Your task to perform on an android device: toggle priority inbox in the gmail app Image 0: 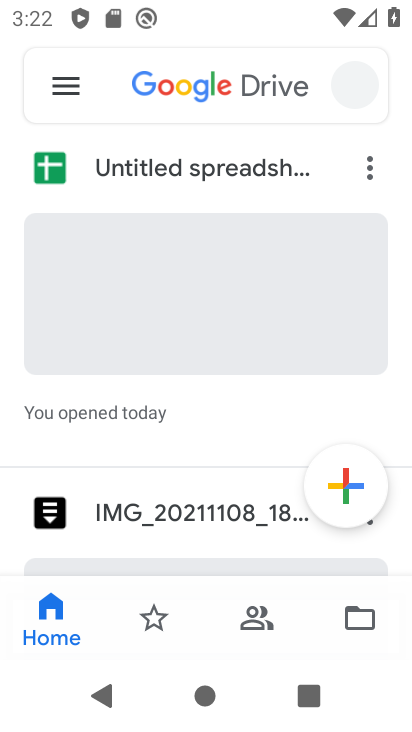
Step 0: press home button
Your task to perform on an android device: toggle priority inbox in the gmail app Image 1: 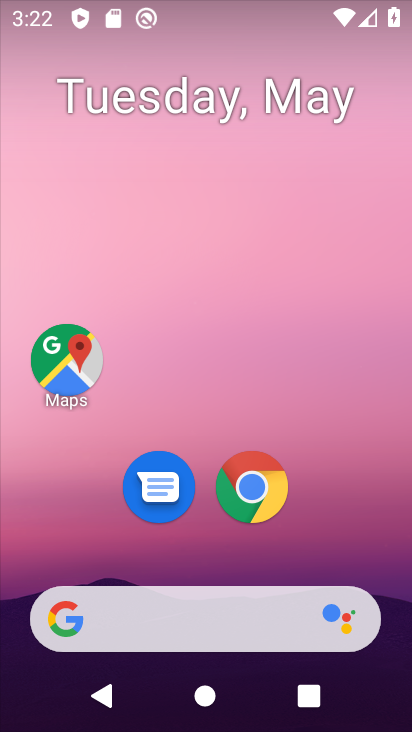
Step 1: drag from (205, 553) to (233, 0)
Your task to perform on an android device: toggle priority inbox in the gmail app Image 2: 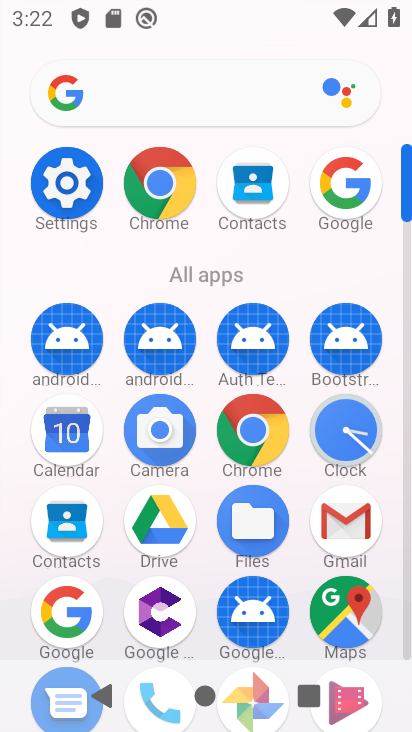
Step 2: click (333, 506)
Your task to perform on an android device: toggle priority inbox in the gmail app Image 3: 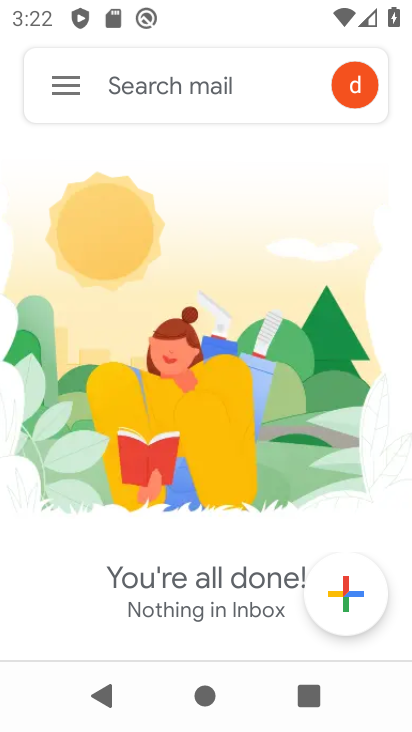
Step 3: click (66, 69)
Your task to perform on an android device: toggle priority inbox in the gmail app Image 4: 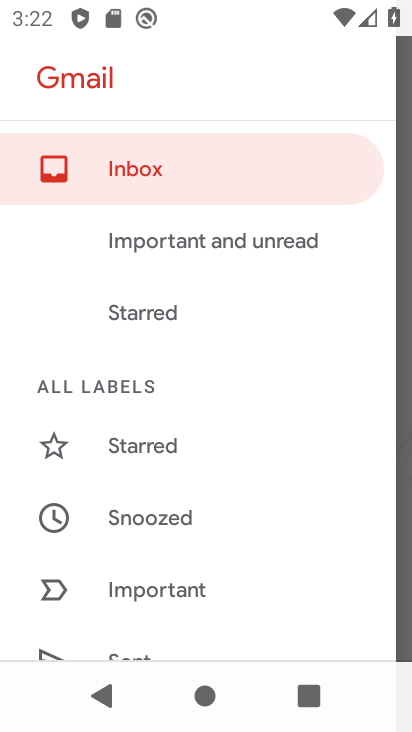
Step 4: drag from (179, 609) to (220, 6)
Your task to perform on an android device: toggle priority inbox in the gmail app Image 5: 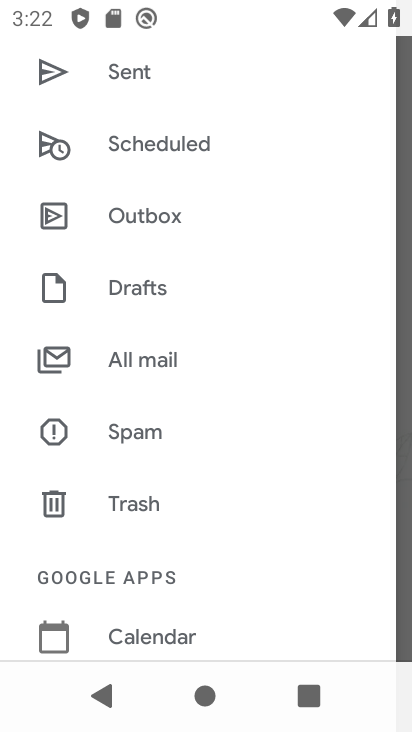
Step 5: drag from (165, 591) to (217, 14)
Your task to perform on an android device: toggle priority inbox in the gmail app Image 6: 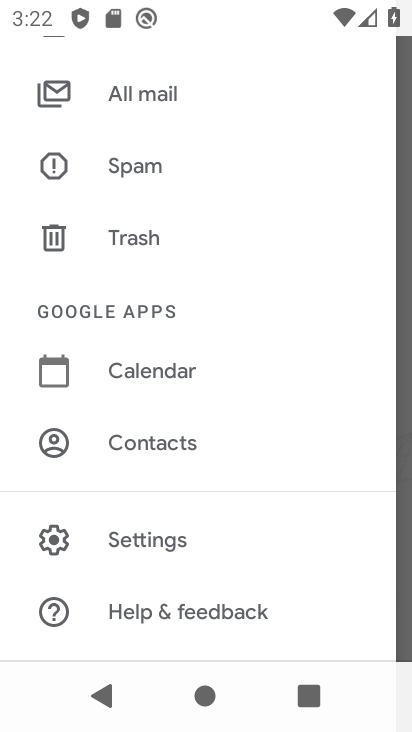
Step 6: click (198, 534)
Your task to perform on an android device: toggle priority inbox in the gmail app Image 7: 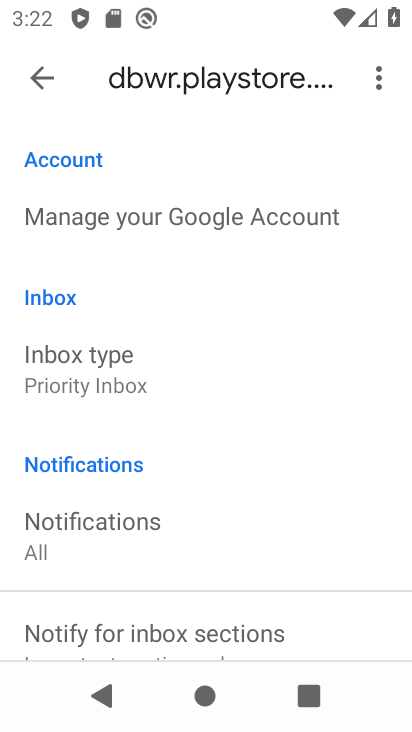
Step 7: click (147, 357)
Your task to perform on an android device: toggle priority inbox in the gmail app Image 8: 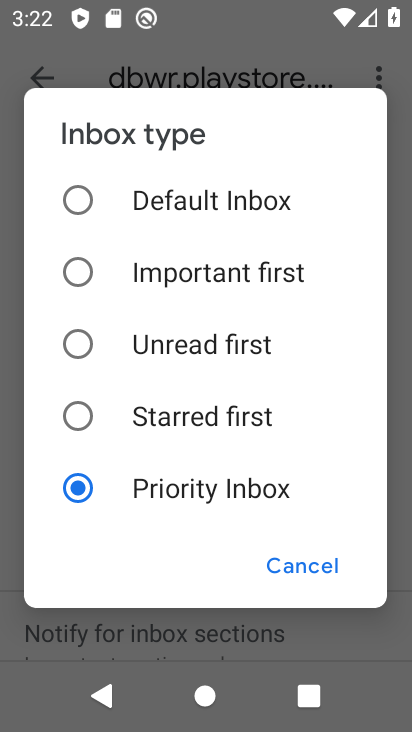
Step 8: click (146, 486)
Your task to perform on an android device: toggle priority inbox in the gmail app Image 9: 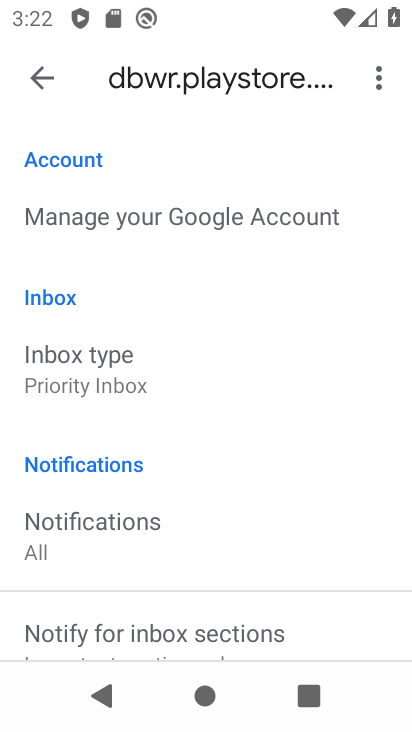
Step 9: task complete